Your task to perform on an android device: change notification settings in the gmail app Image 0: 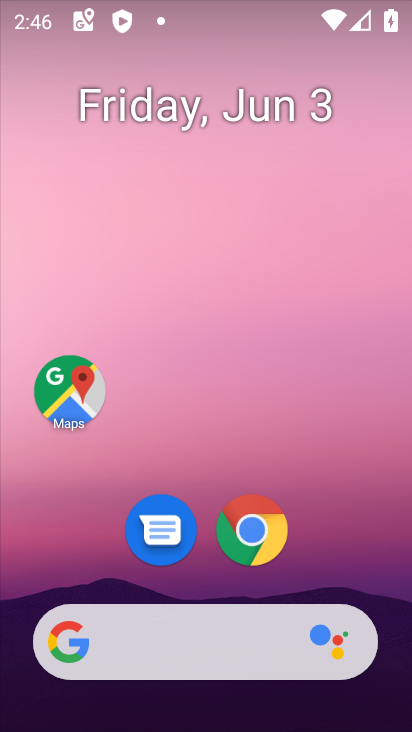
Step 0: click (67, 378)
Your task to perform on an android device: change notification settings in the gmail app Image 1: 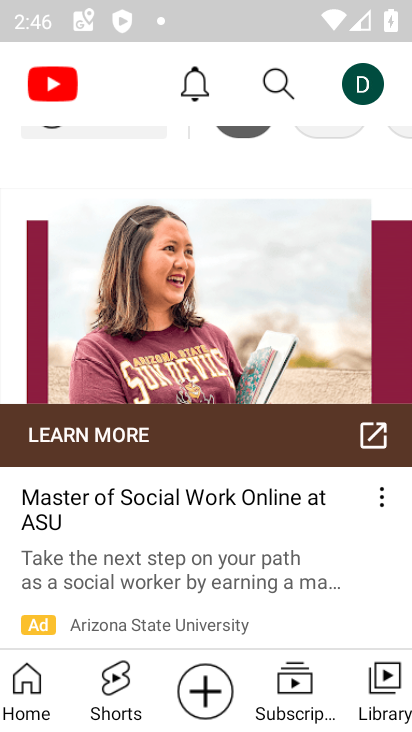
Step 1: press home button
Your task to perform on an android device: change notification settings in the gmail app Image 2: 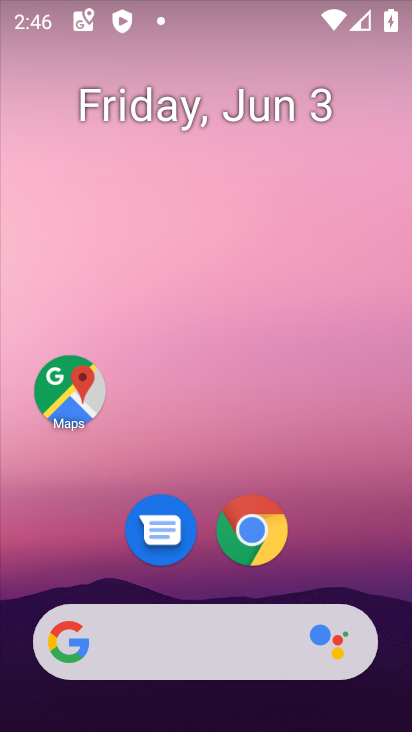
Step 2: drag from (359, 532) to (275, 141)
Your task to perform on an android device: change notification settings in the gmail app Image 3: 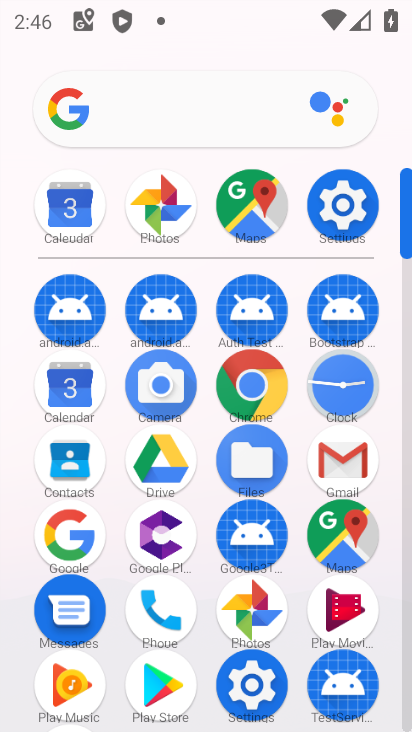
Step 3: click (352, 458)
Your task to perform on an android device: change notification settings in the gmail app Image 4: 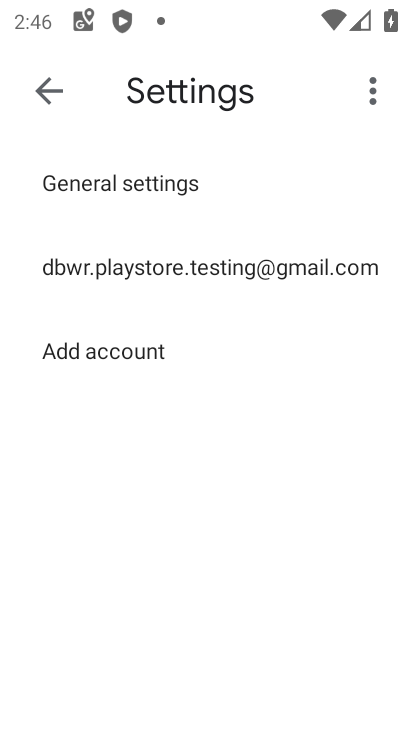
Step 4: click (124, 189)
Your task to perform on an android device: change notification settings in the gmail app Image 5: 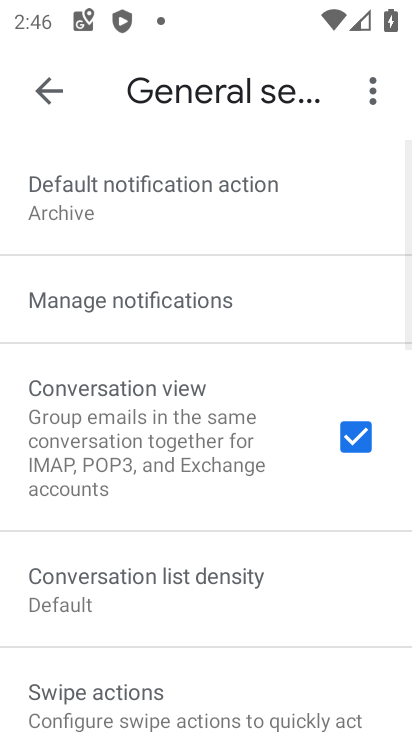
Step 5: click (164, 286)
Your task to perform on an android device: change notification settings in the gmail app Image 6: 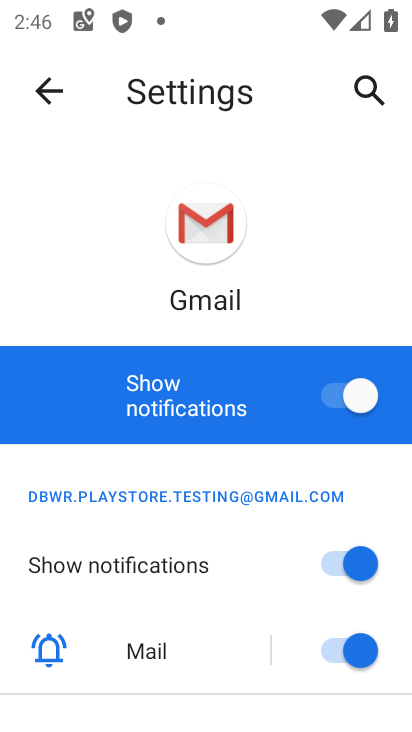
Step 6: click (358, 405)
Your task to perform on an android device: change notification settings in the gmail app Image 7: 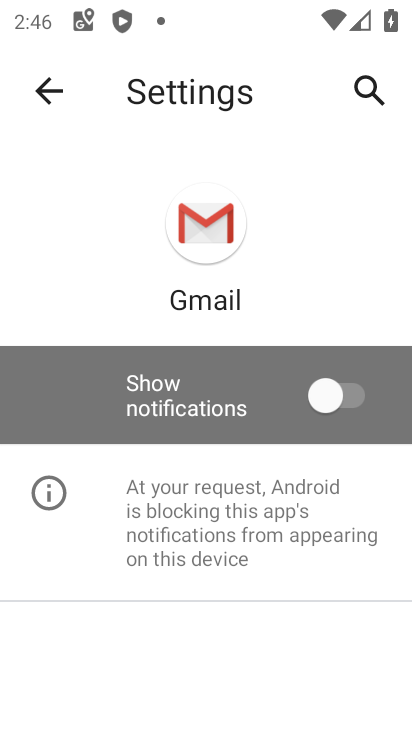
Step 7: task complete